Your task to perform on an android device: Open Android settings Image 0: 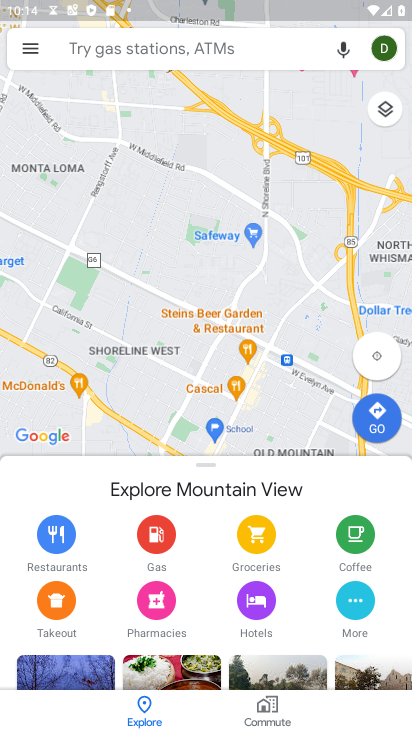
Step 0: press home button
Your task to perform on an android device: Open Android settings Image 1: 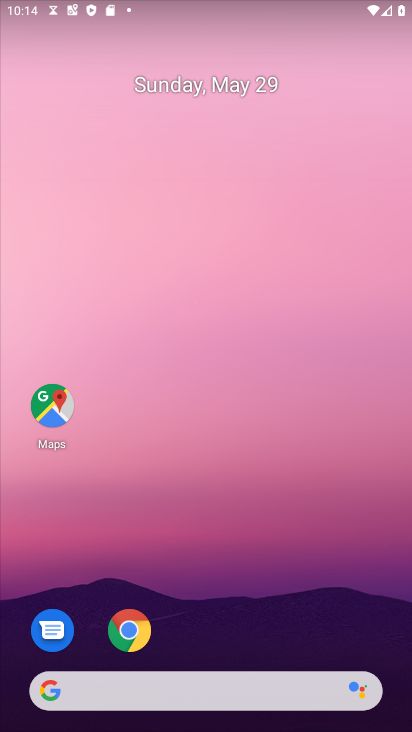
Step 1: drag from (254, 645) to (285, 201)
Your task to perform on an android device: Open Android settings Image 2: 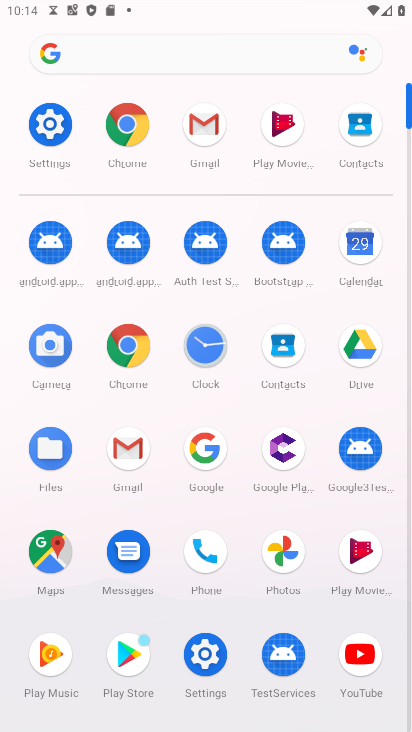
Step 2: click (45, 131)
Your task to perform on an android device: Open Android settings Image 3: 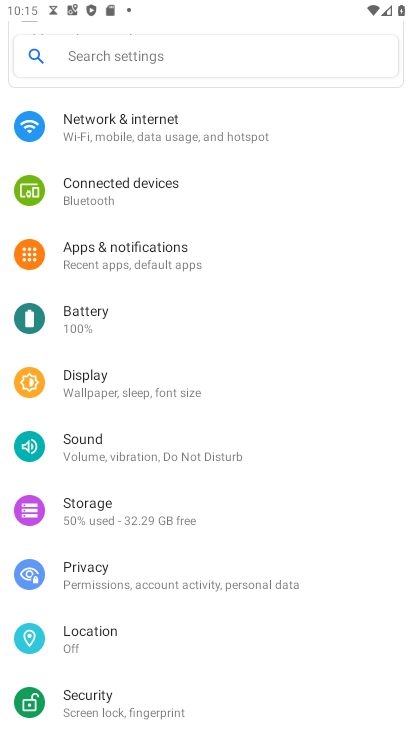
Step 3: drag from (196, 543) to (206, 135)
Your task to perform on an android device: Open Android settings Image 4: 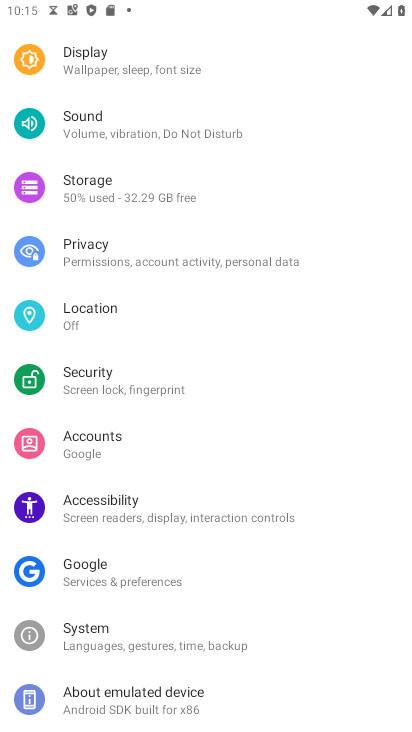
Step 4: click (147, 693)
Your task to perform on an android device: Open Android settings Image 5: 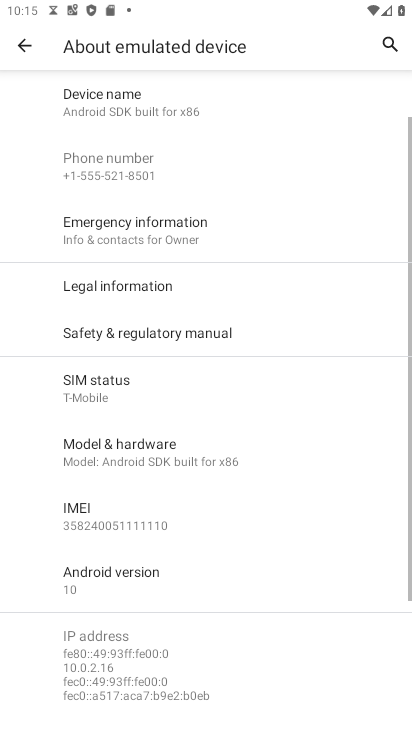
Step 5: click (119, 587)
Your task to perform on an android device: Open Android settings Image 6: 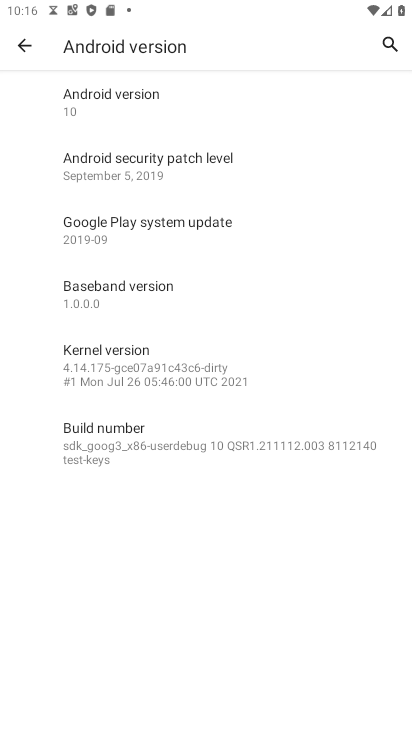
Step 6: task complete